Your task to perform on an android device: What's the weather today? Image 0: 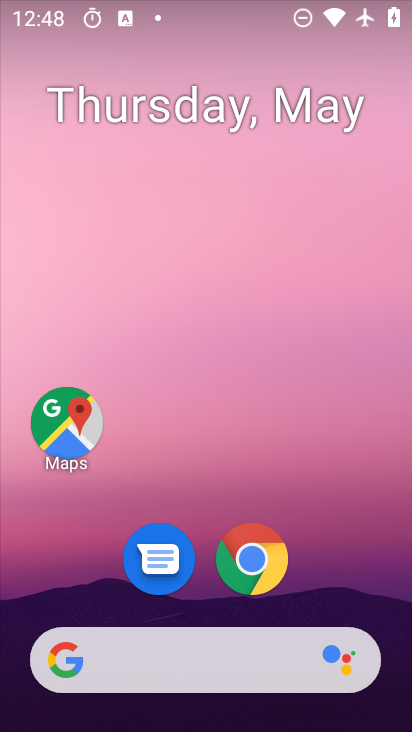
Step 0: drag from (310, 545) to (291, 81)
Your task to perform on an android device: What's the weather today? Image 1: 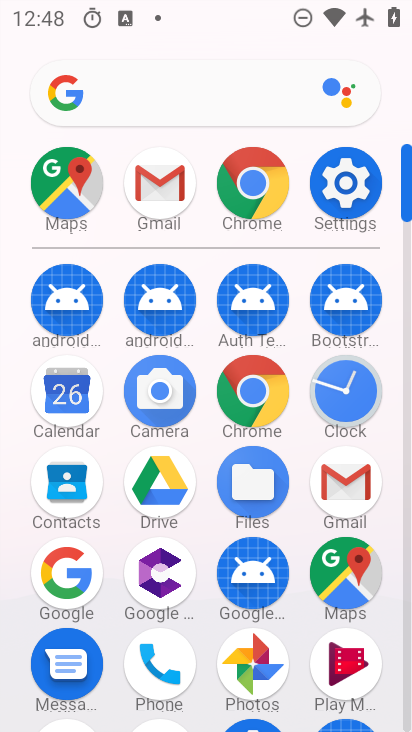
Step 1: click (313, 70)
Your task to perform on an android device: What's the weather today? Image 2: 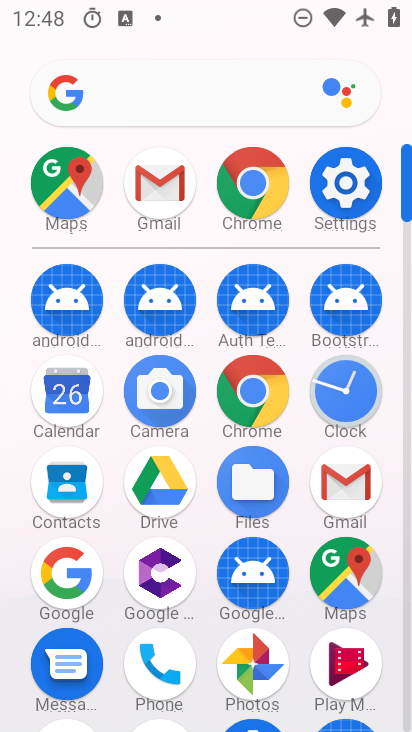
Step 2: drag from (319, 73) to (376, 75)
Your task to perform on an android device: What's the weather today? Image 3: 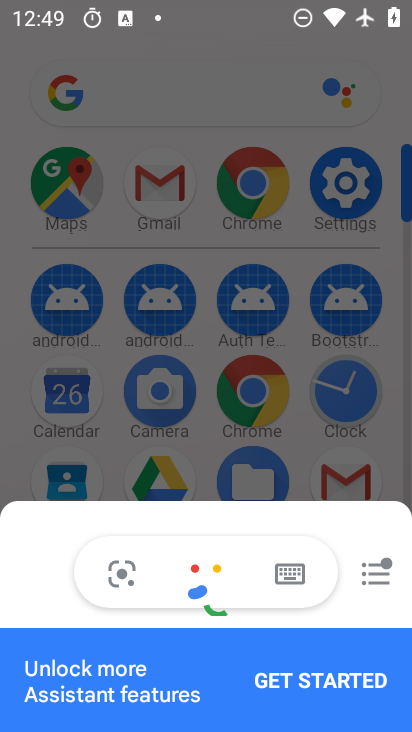
Step 3: press home button
Your task to perform on an android device: What's the weather today? Image 4: 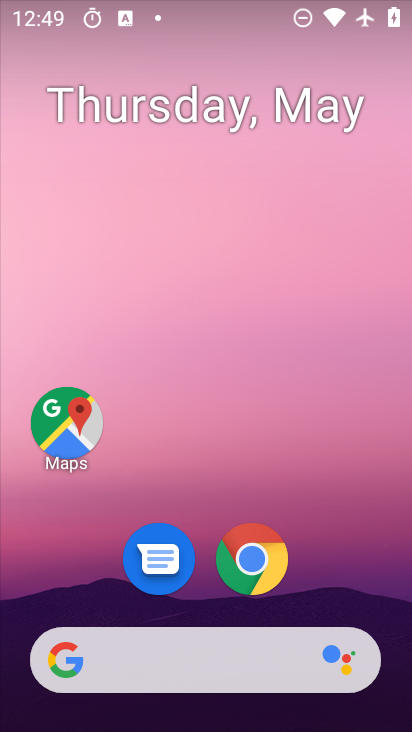
Step 4: drag from (144, 649) to (193, 153)
Your task to perform on an android device: What's the weather today? Image 5: 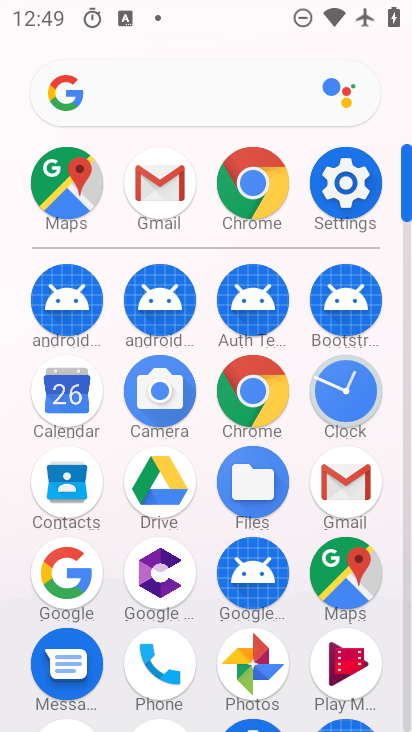
Step 5: click (68, 565)
Your task to perform on an android device: What's the weather today? Image 6: 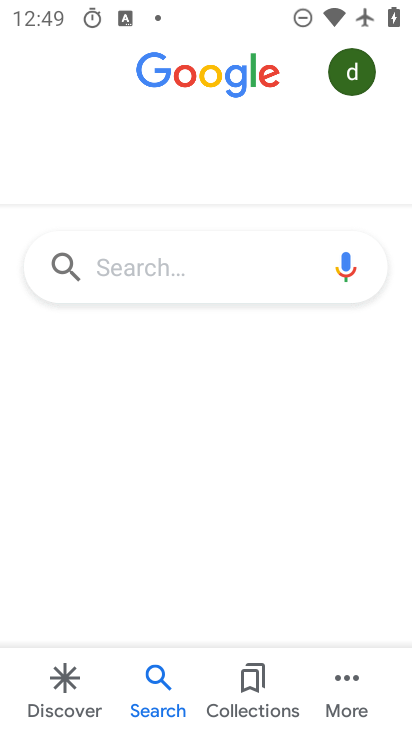
Step 6: click (200, 275)
Your task to perform on an android device: What's the weather today? Image 7: 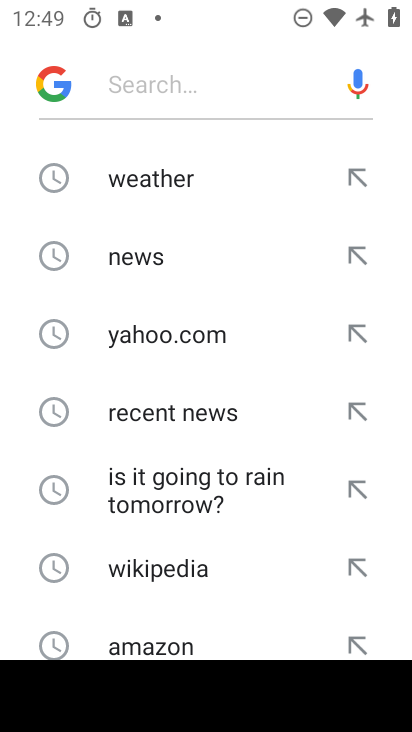
Step 7: click (186, 187)
Your task to perform on an android device: What's the weather today? Image 8: 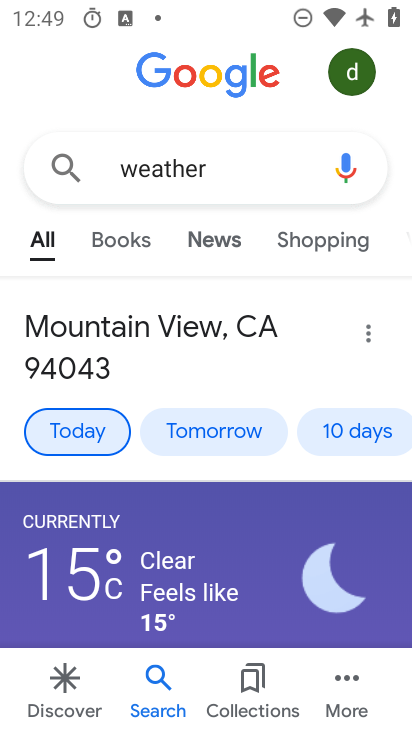
Step 8: task complete